Your task to perform on an android device: toggle data saver in the chrome app Image 0: 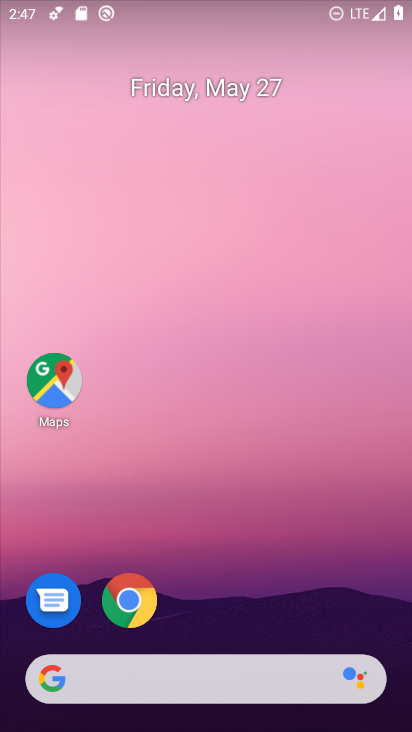
Step 0: click (128, 600)
Your task to perform on an android device: toggle data saver in the chrome app Image 1: 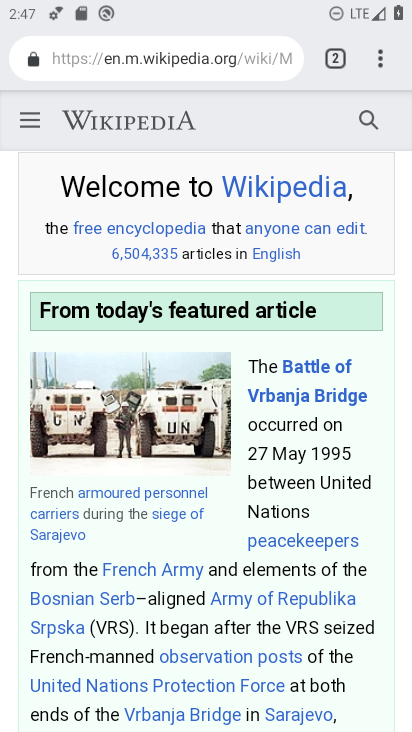
Step 1: click (381, 66)
Your task to perform on an android device: toggle data saver in the chrome app Image 2: 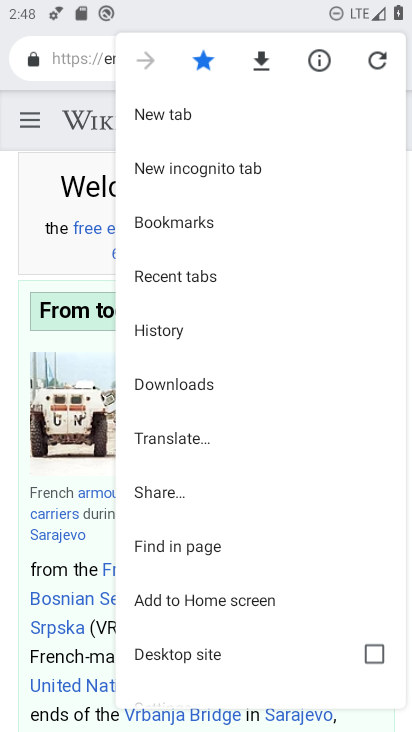
Step 2: drag from (170, 650) to (170, 302)
Your task to perform on an android device: toggle data saver in the chrome app Image 3: 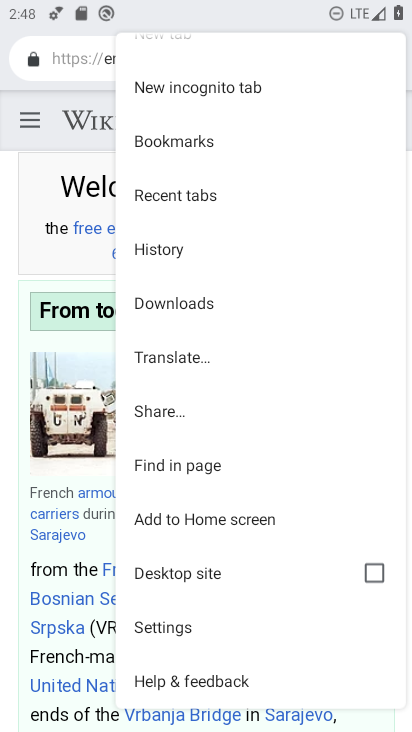
Step 3: click (181, 623)
Your task to perform on an android device: toggle data saver in the chrome app Image 4: 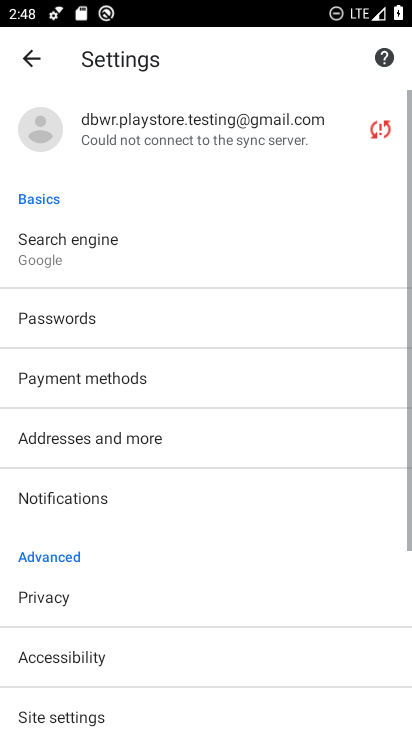
Step 4: drag from (179, 682) to (178, 362)
Your task to perform on an android device: toggle data saver in the chrome app Image 5: 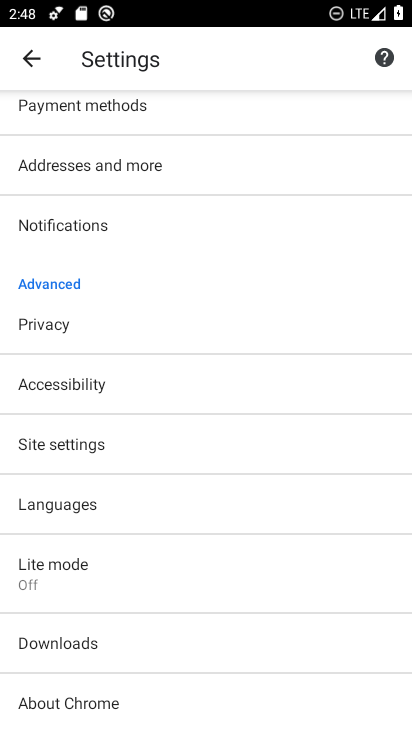
Step 5: drag from (117, 663) to (127, 372)
Your task to perform on an android device: toggle data saver in the chrome app Image 6: 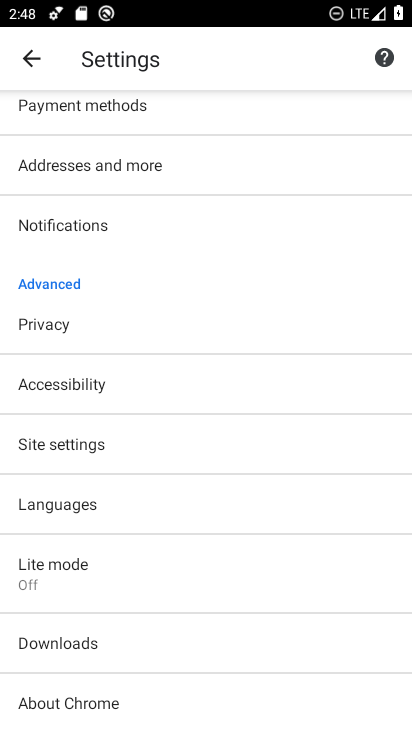
Step 6: click (53, 562)
Your task to perform on an android device: toggle data saver in the chrome app Image 7: 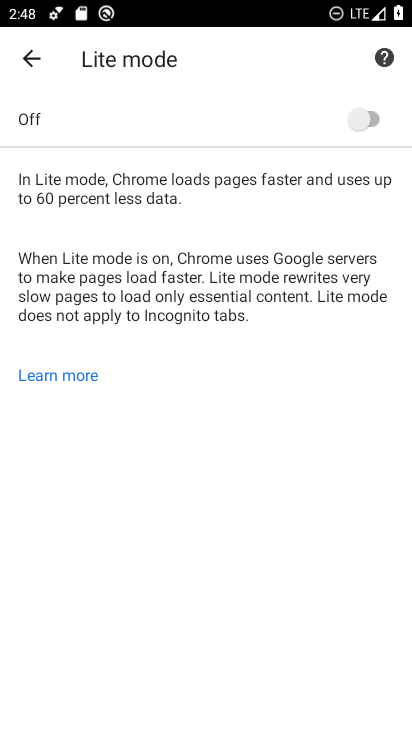
Step 7: click (380, 117)
Your task to perform on an android device: toggle data saver in the chrome app Image 8: 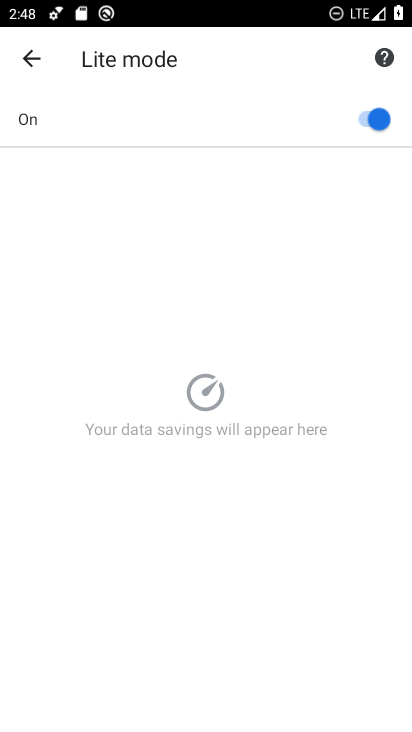
Step 8: task complete